Your task to perform on an android device: toggle priority inbox in the gmail app Image 0: 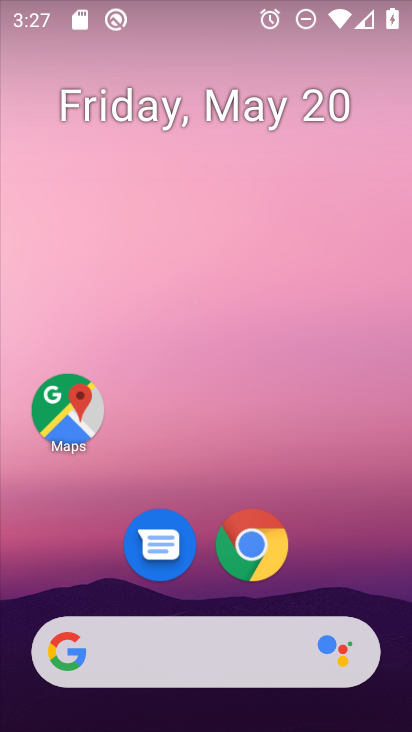
Step 0: drag from (348, 561) to (311, 30)
Your task to perform on an android device: toggle priority inbox in the gmail app Image 1: 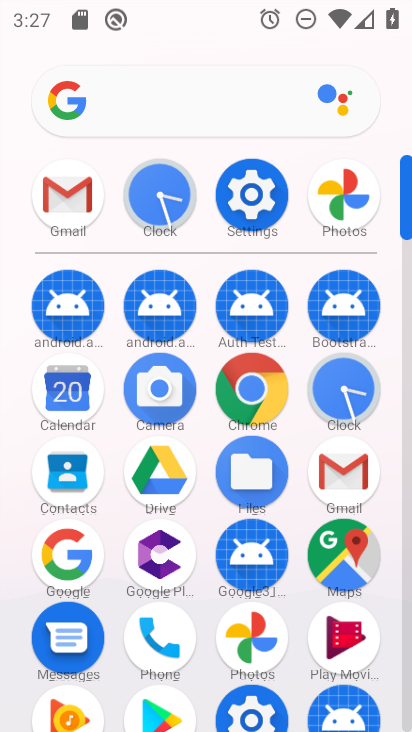
Step 1: click (71, 201)
Your task to perform on an android device: toggle priority inbox in the gmail app Image 2: 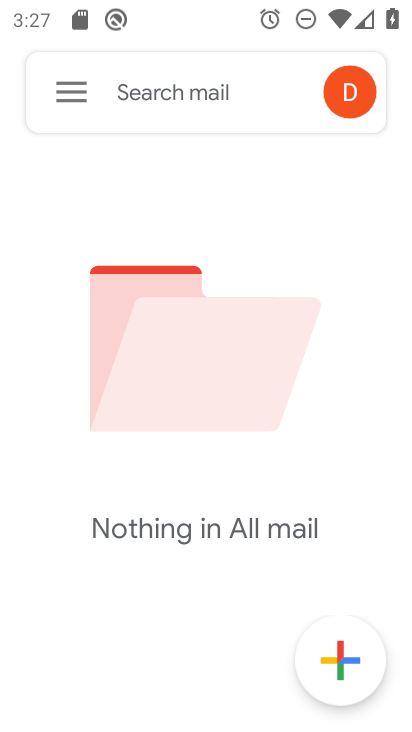
Step 2: click (86, 99)
Your task to perform on an android device: toggle priority inbox in the gmail app Image 3: 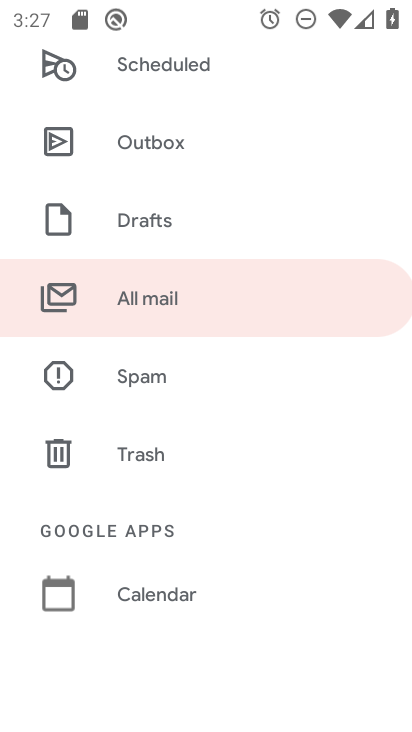
Step 3: drag from (235, 585) to (248, 187)
Your task to perform on an android device: toggle priority inbox in the gmail app Image 4: 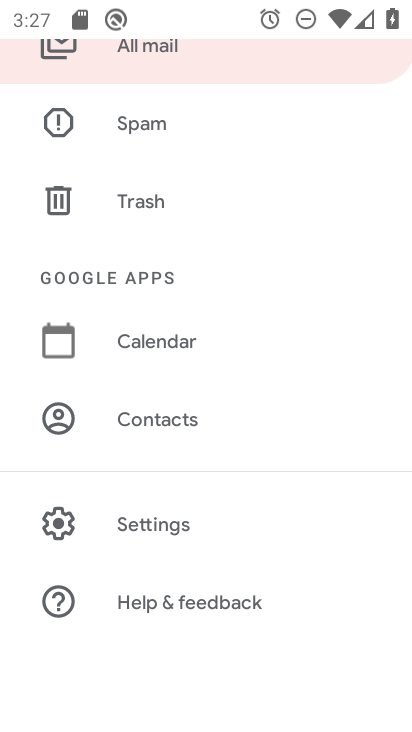
Step 4: click (154, 515)
Your task to perform on an android device: toggle priority inbox in the gmail app Image 5: 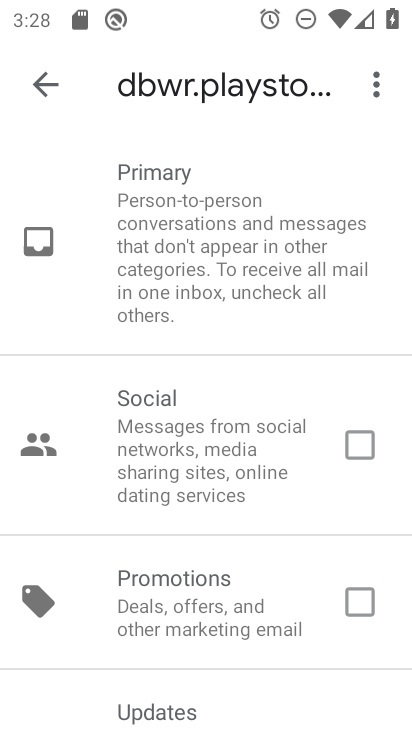
Step 5: drag from (233, 244) to (243, 527)
Your task to perform on an android device: toggle priority inbox in the gmail app Image 6: 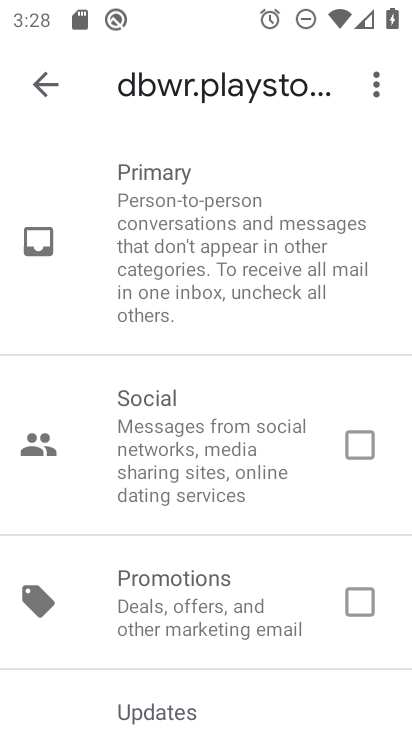
Step 6: click (40, 81)
Your task to perform on an android device: toggle priority inbox in the gmail app Image 7: 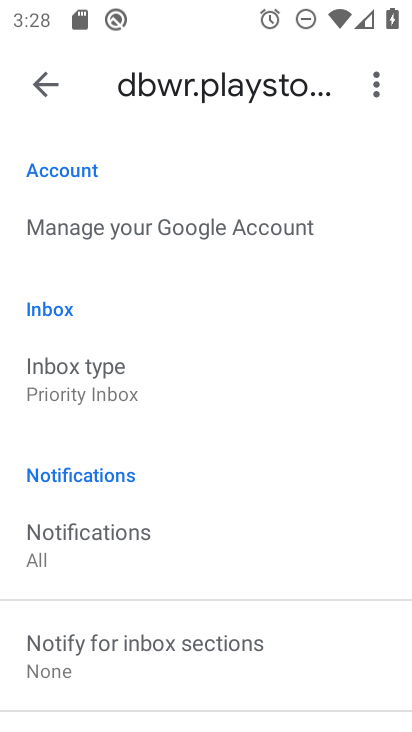
Step 7: click (126, 401)
Your task to perform on an android device: toggle priority inbox in the gmail app Image 8: 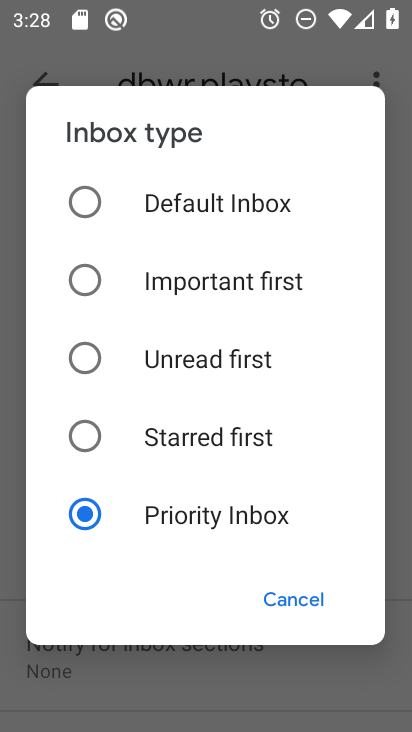
Step 8: click (83, 202)
Your task to perform on an android device: toggle priority inbox in the gmail app Image 9: 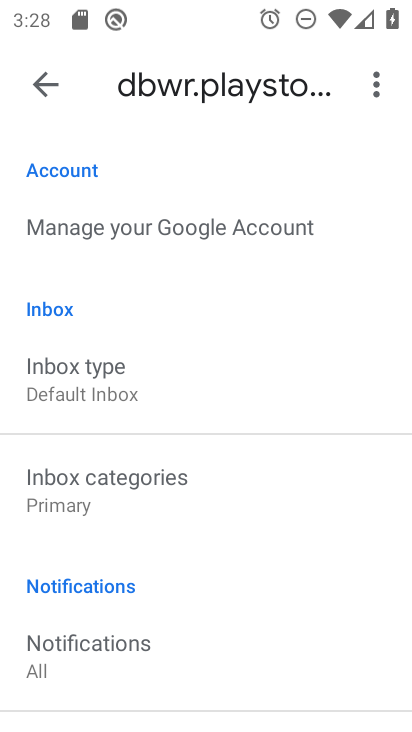
Step 9: task complete